Your task to perform on an android device: Open CNN.com Image 0: 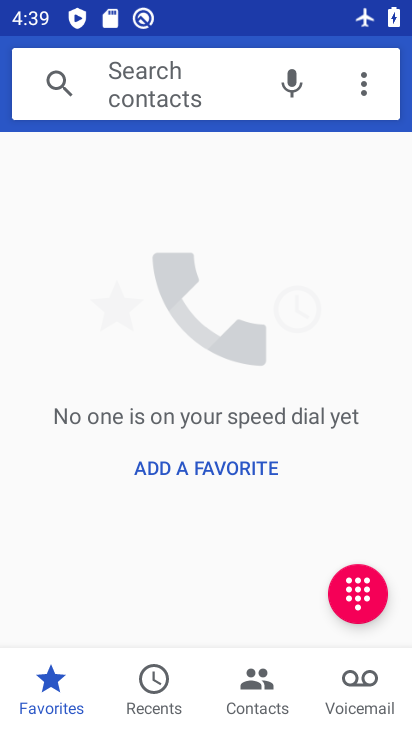
Step 0: drag from (272, 563) to (311, 563)
Your task to perform on an android device: Open CNN.com Image 1: 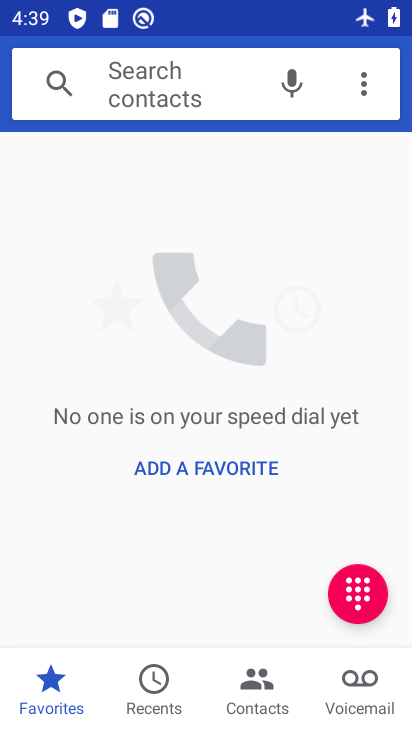
Step 1: press home button
Your task to perform on an android device: Open CNN.com Image 2: 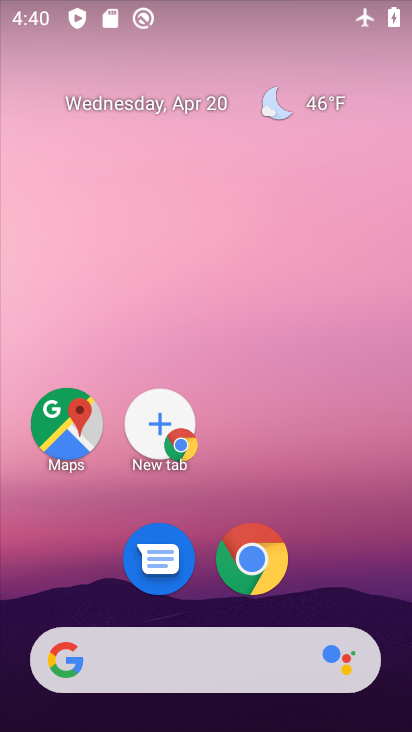
Step 2: click (250, 553)
Your task to perform on an android device: Open CNN.com Image 3: 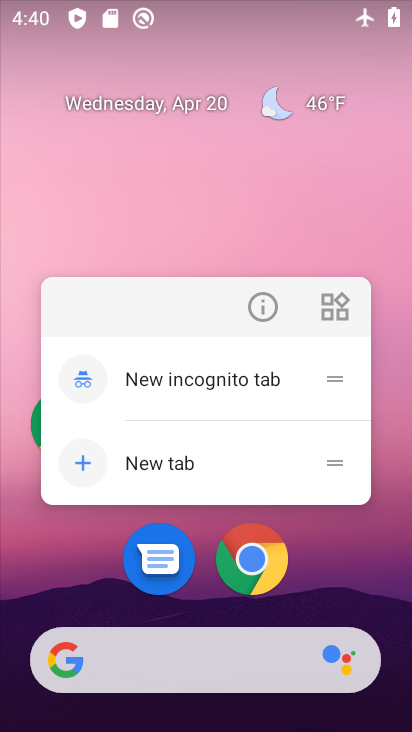
Step 3: click (252, 551)
Your task to perform on an android device: Open CNN.com Image 4: 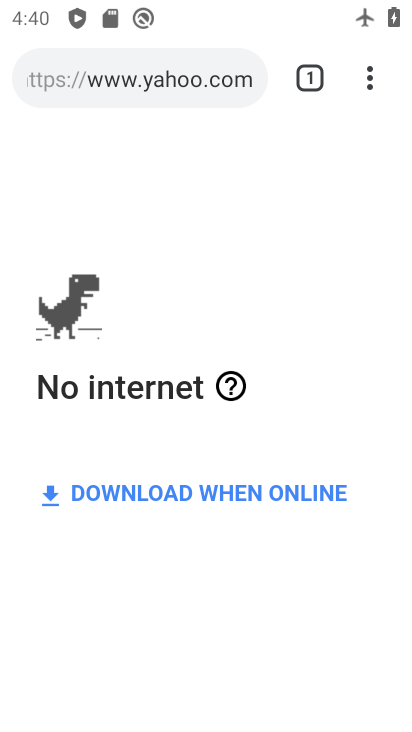
Step 4: click (192, 85)
Your task to perform on an android device: Open CNN.com Image 5: 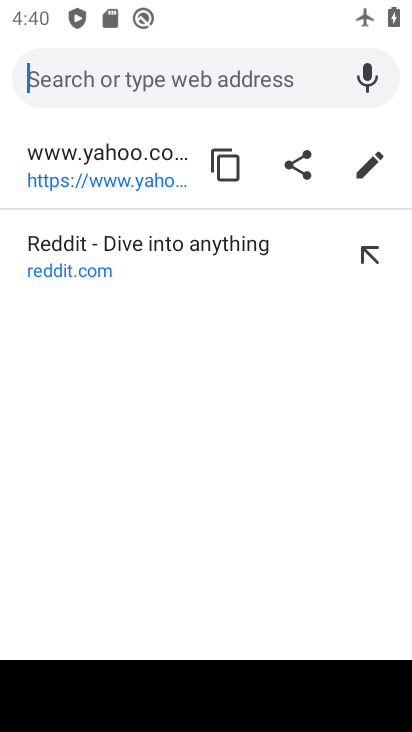
Step 5: type "cnnn"
Your task to perform on an android device: Open CNN.com Image 6: 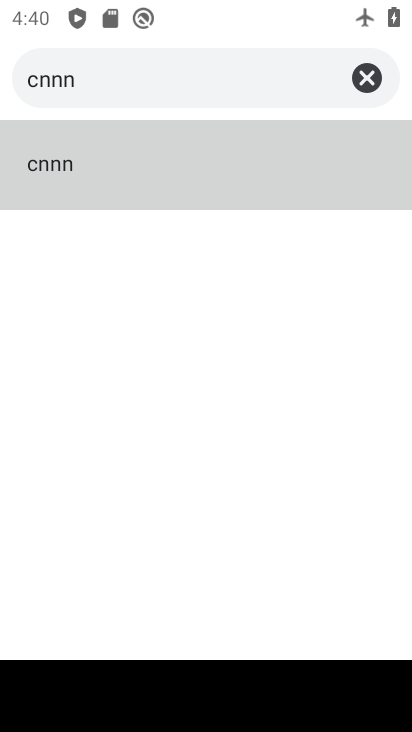
Step 6: type "cnn"
Your task to perform on an android device: Open CNN.com Image 7: 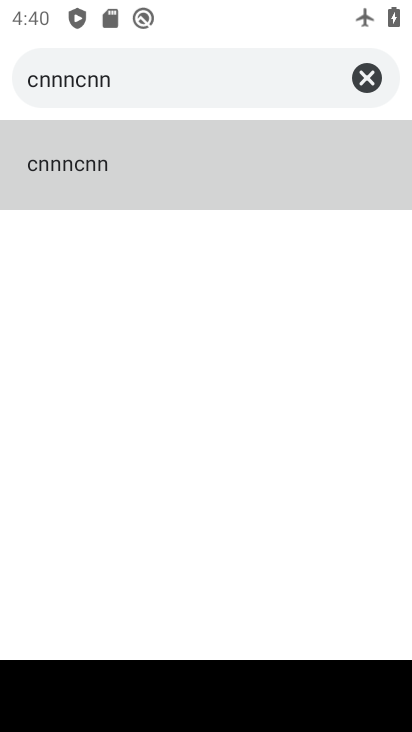
Step 7: click (373, 77)
Your task to perform on an android device: Open CNN.com Image 8: 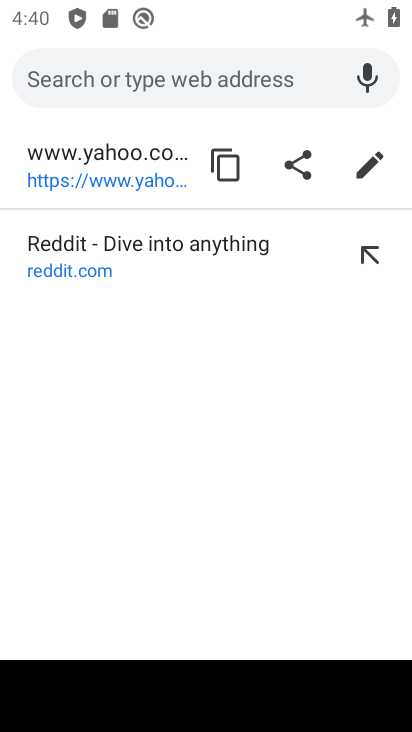
Step 8: type "cnn"
Your task to perform on an android device: Open CNN.com Image 9: 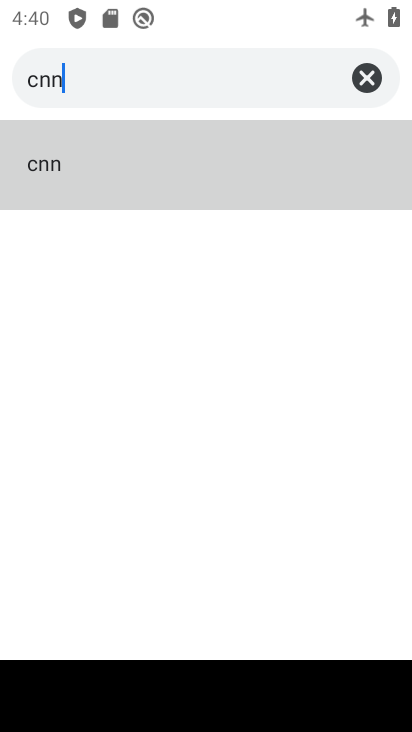
Step 9: task complete